Your task to perform on an android device: What's the weather? Image 0: 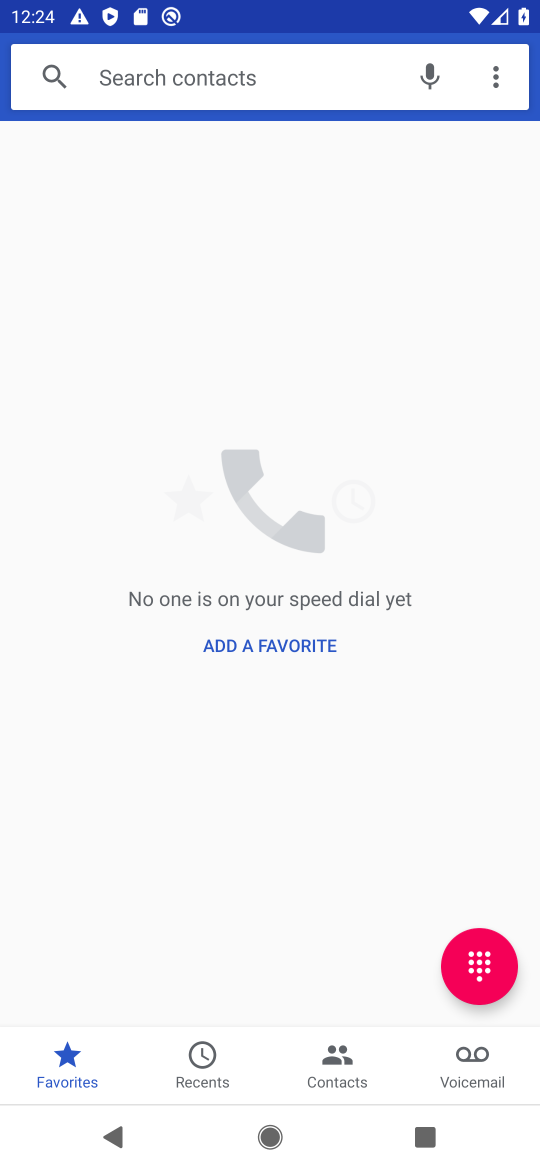
Step 0: press back button
Your task to perform on an android device: What's the weather? Image 1: 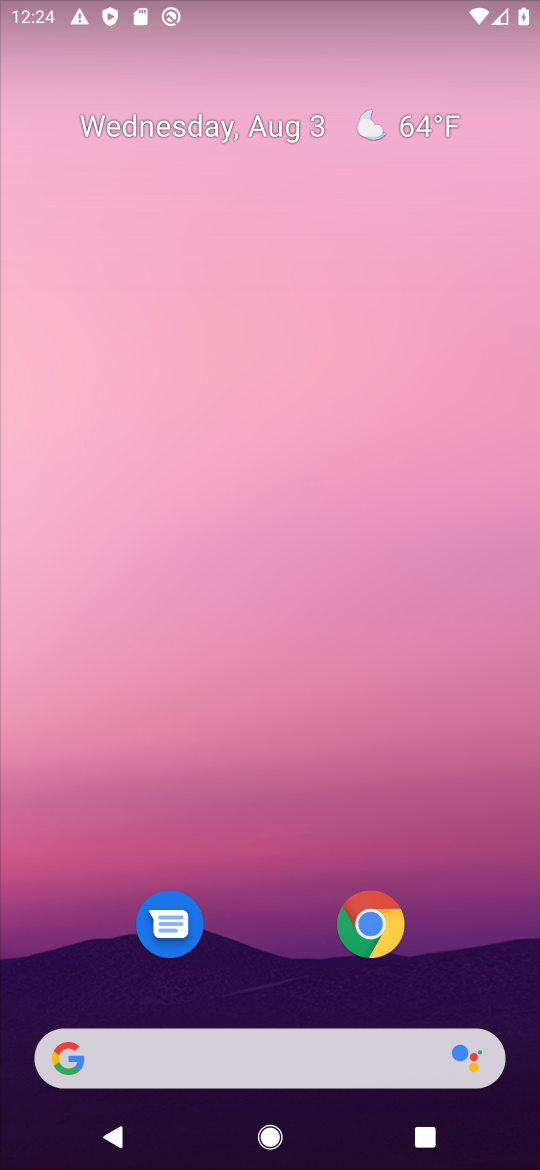
Step 1: click (250, 1066)
Your task to perform on an android device: What's the weather? Image 2: 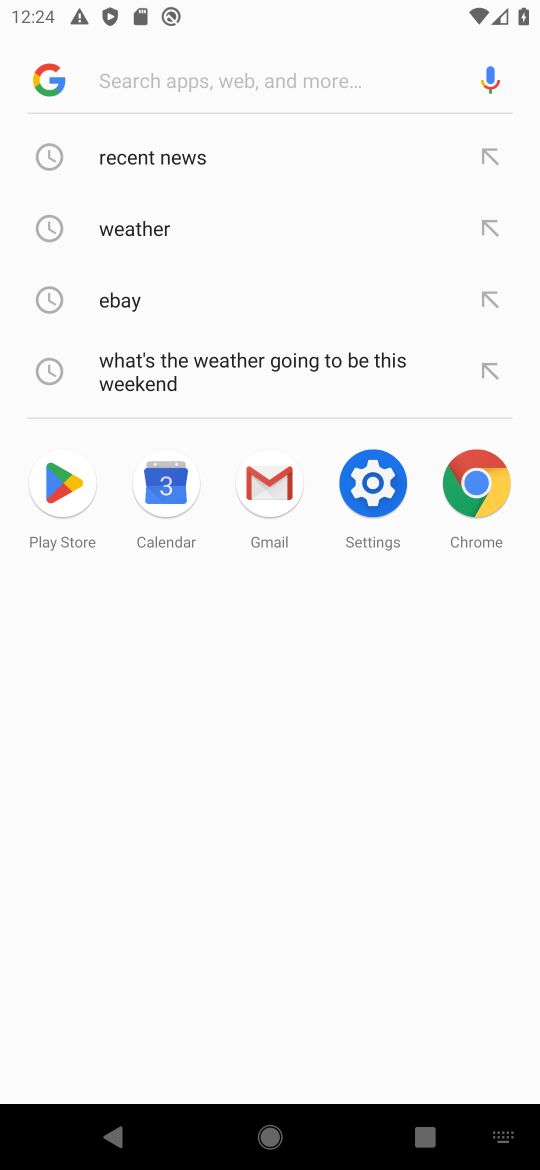
Step 2: click (163, 220)
Your task to perform on an android device: What's the weather? Image 3: 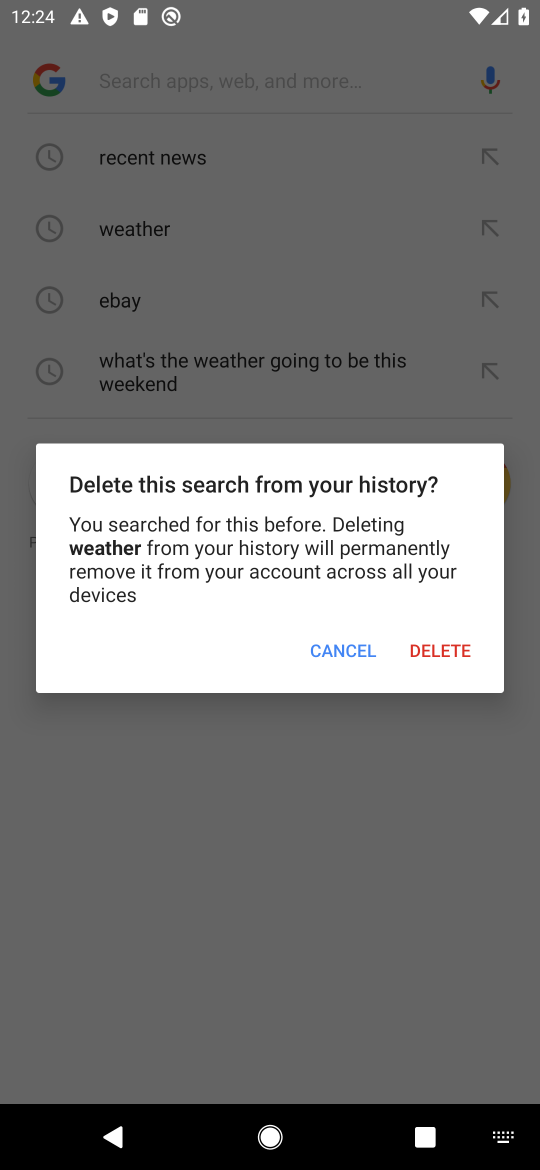
Step 3: click (326, 657)
Your task to perform on an android device: What's the weather? Image 4: 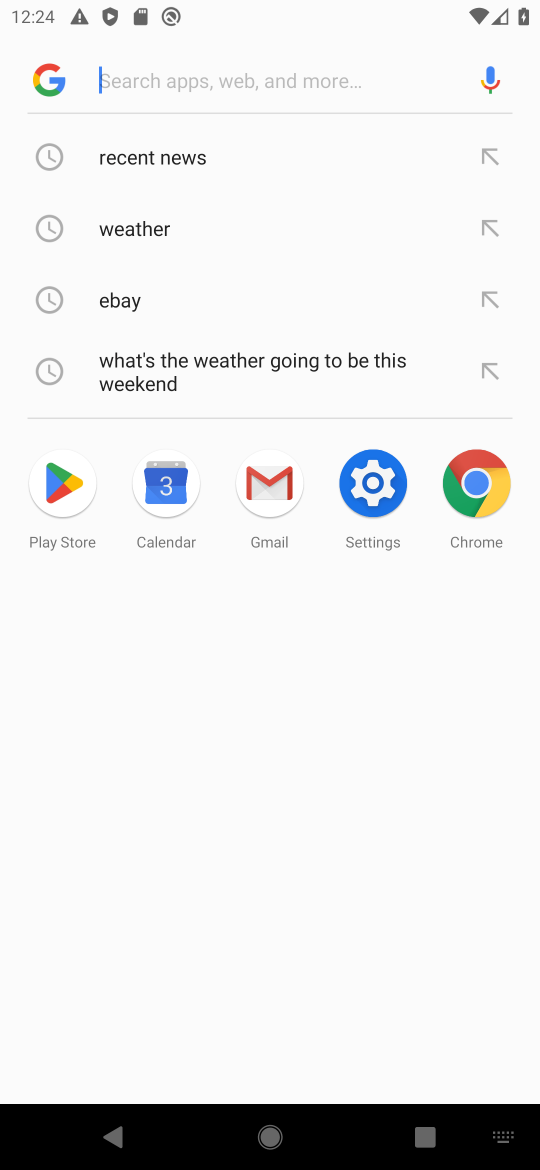
Step 4: click (163, 240)
Your task to perform on an android device: What's the weather? Image 5: 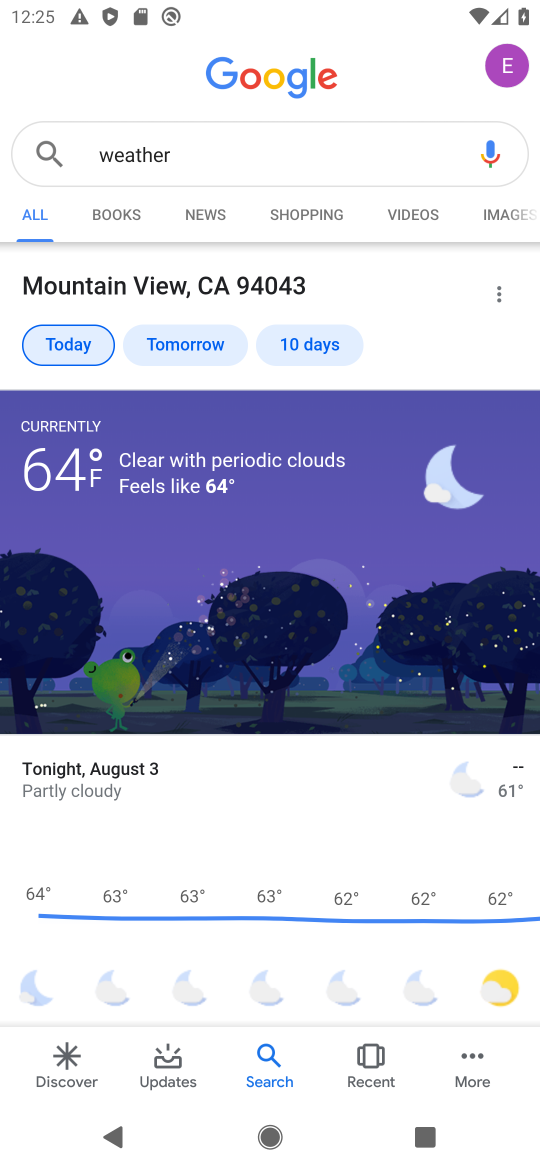
Step 5: task complete